Your task to perform on an android device: turn pop-ups off in chrome Image 0: 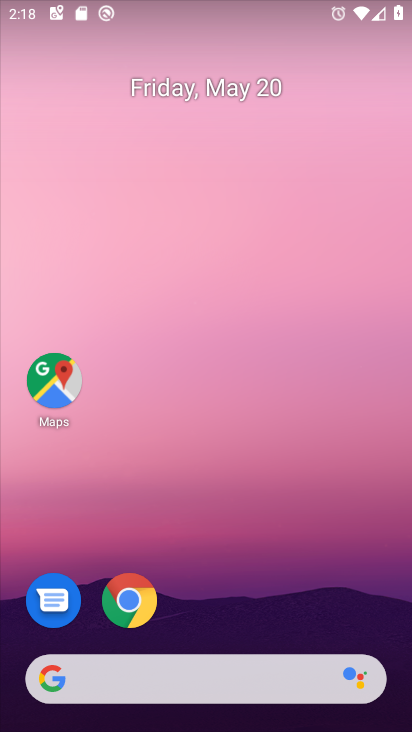
Step 0: click (159, 612)
Your task to perform on an android device: turn pop-ups off in chrome Image 1: 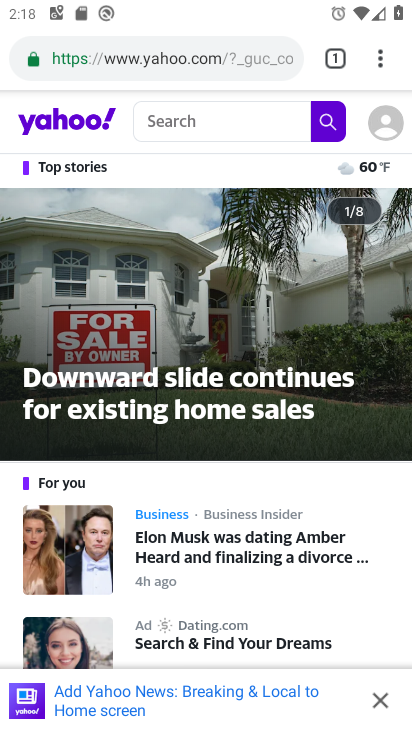
Step 1: click (392, 54)
Your task to perform on an android device: turn pop-ups off in chrome Image 2: 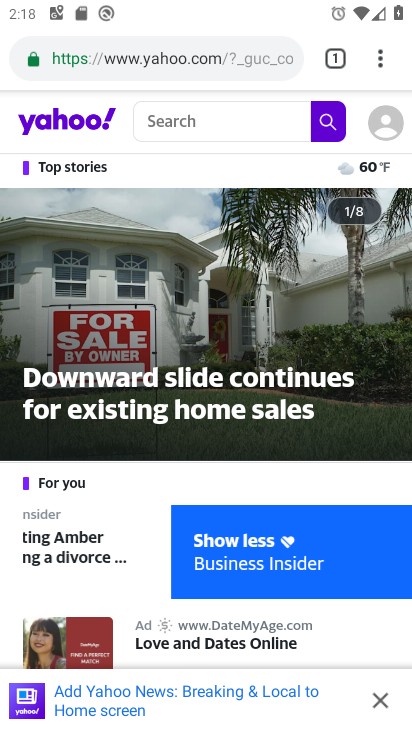
Step 2: click (376, 58)
Your task to perform on an android device: turn pop-ups off in chrome Image 3: 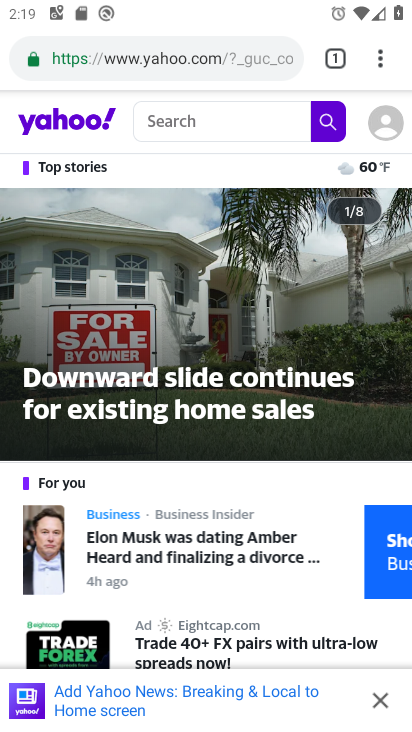
Step 3: click (376, 52)
Your task to perform on an android device: turn pop-ups off in chrome Image 4: 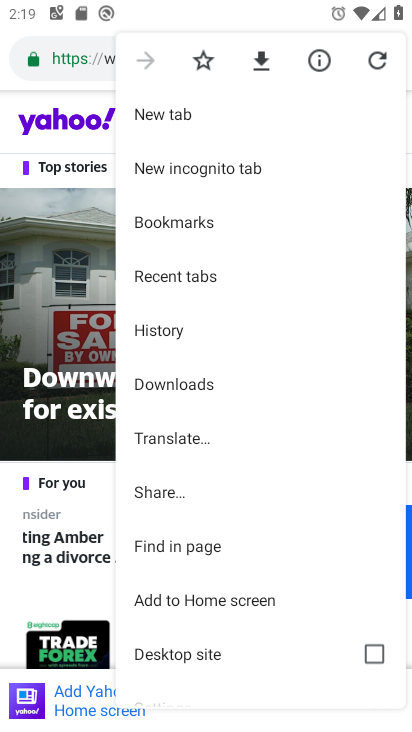
Step 4: drag from (159, 626) to (181, 433)
Your task to perform on an android device: turn pop-ups off in chrome Image 5: 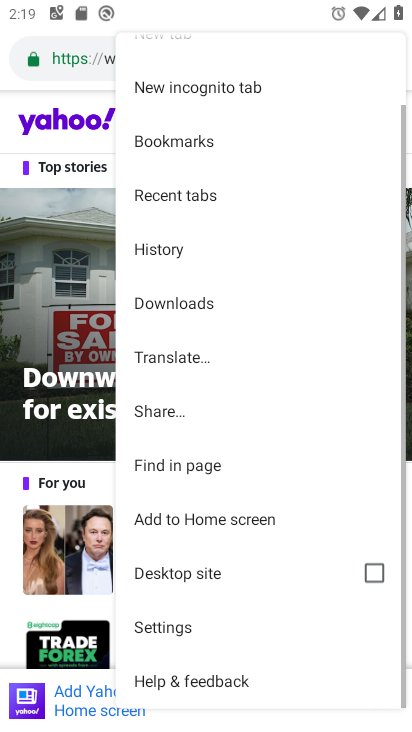
Step 5: click (170, 628)
Your task to perform on an android device: turn pop-ups off in chrome Image 6: 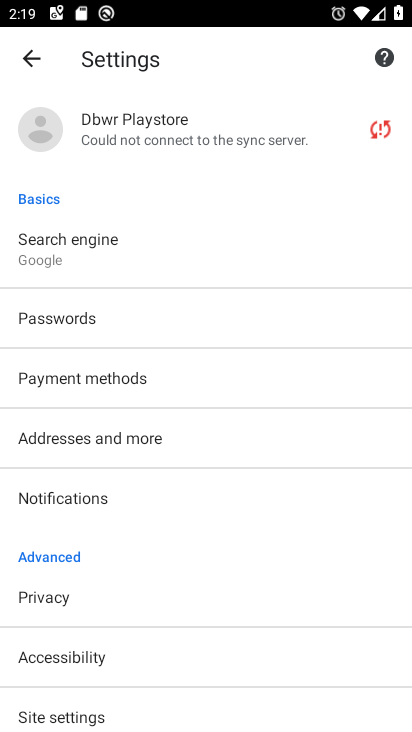
Step 6: drag from (91, 612) to (117, 397)
Your task to perform on an android device: turn pop-ups off in chrome Image 7: 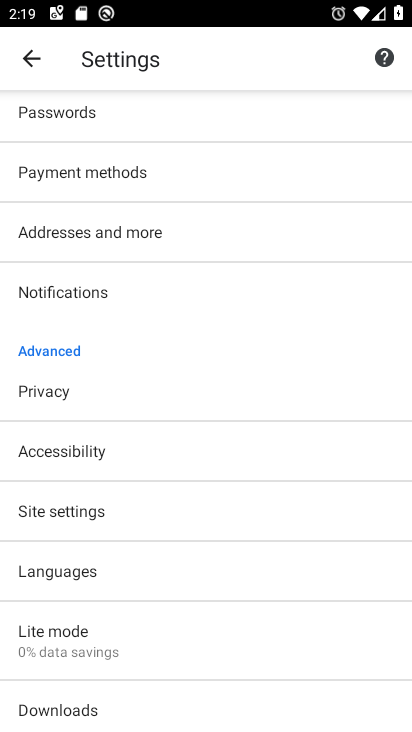
Step 7: click (93, 518)
Your task to perform on an android device: turn pop-ups off in chrome Image 8: 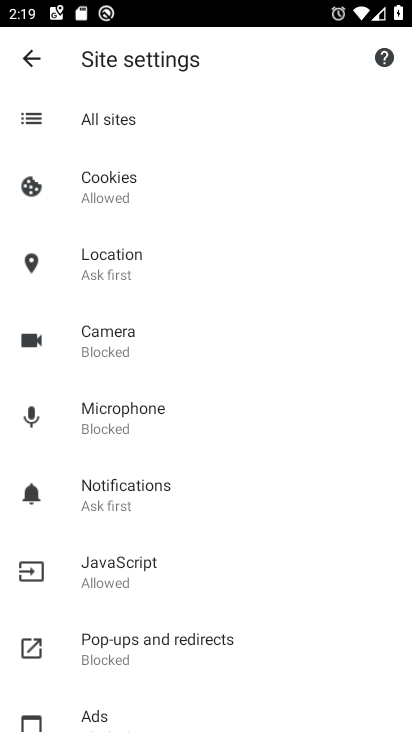
Step 8: click (147, 662)
Your task to perform on an android device: turn pop-ups off in chrome Image 9: 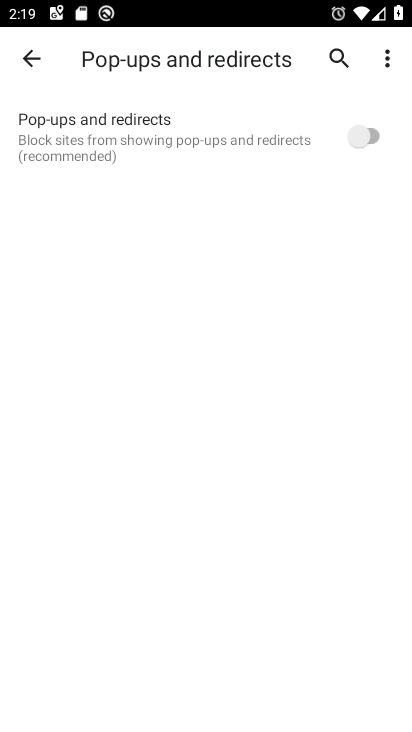
Step 9: task complete